Your task to perform on an android device: turn on showing notifications on the lock screen Image 0: 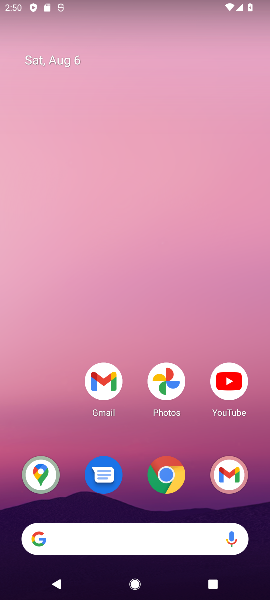
Step 0: drag from (25, 565) to (191, 273)
Your task to perform on an android device: turn on showing notifications on the lock screen Image 1: 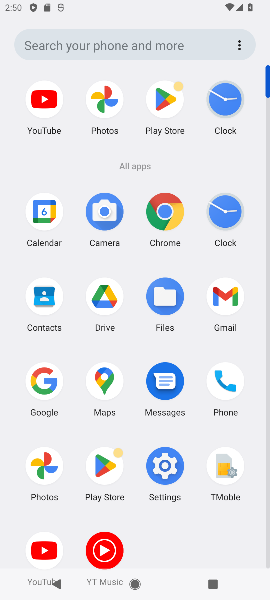
Step 1: click (169, 462)
Your task to perform on an android device: turn on showing notifications on the lock screen Image 2: 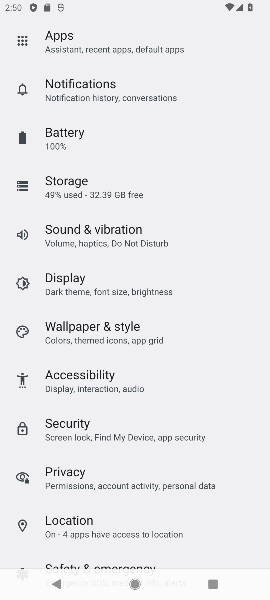
Step 2: click (126, 80)
Your task to perform on an android device: turn on showing notifications on the lock screen Image 3: 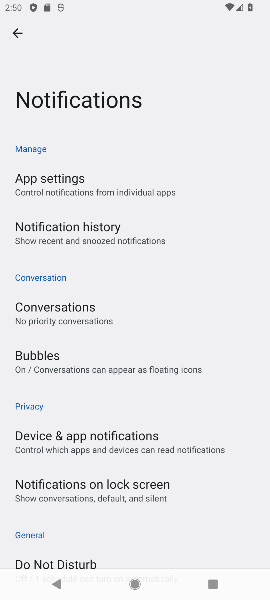
Step 3: click (107, 495)
Your task to perform on an android device: turn on showing notifications on the lock screen Image 4: 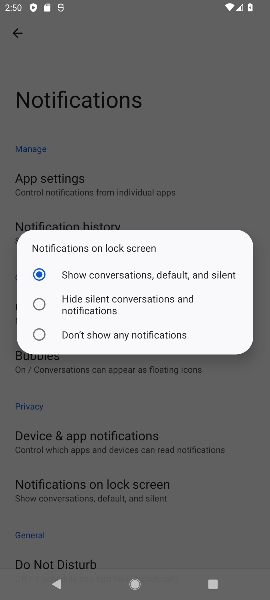
Step 4: task complete